Your task to perform on an android device: install app "Skype" Image 0: 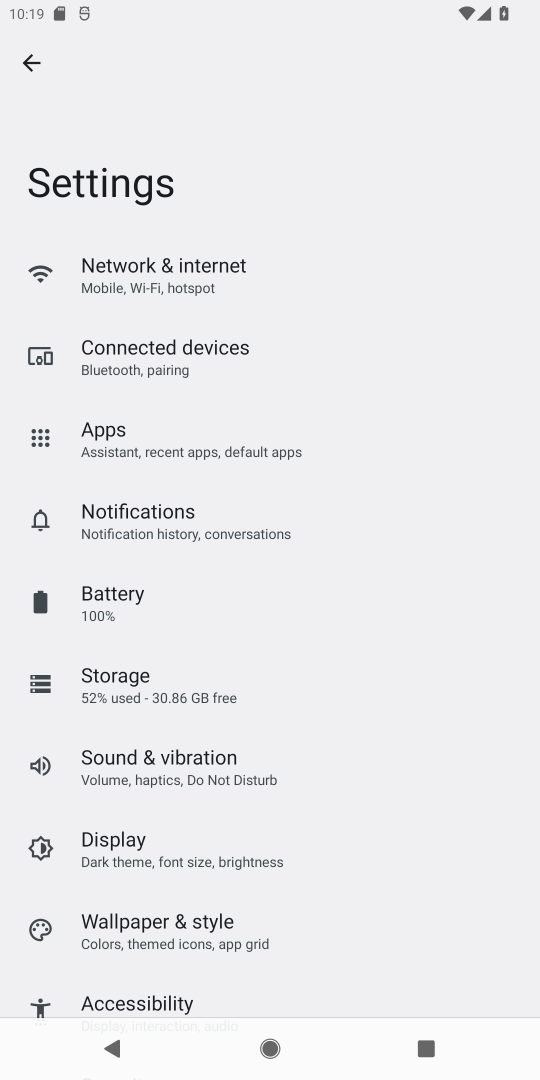
Step 0: press home button
Your task to perform on an android device: install app "Skype" Image 1: 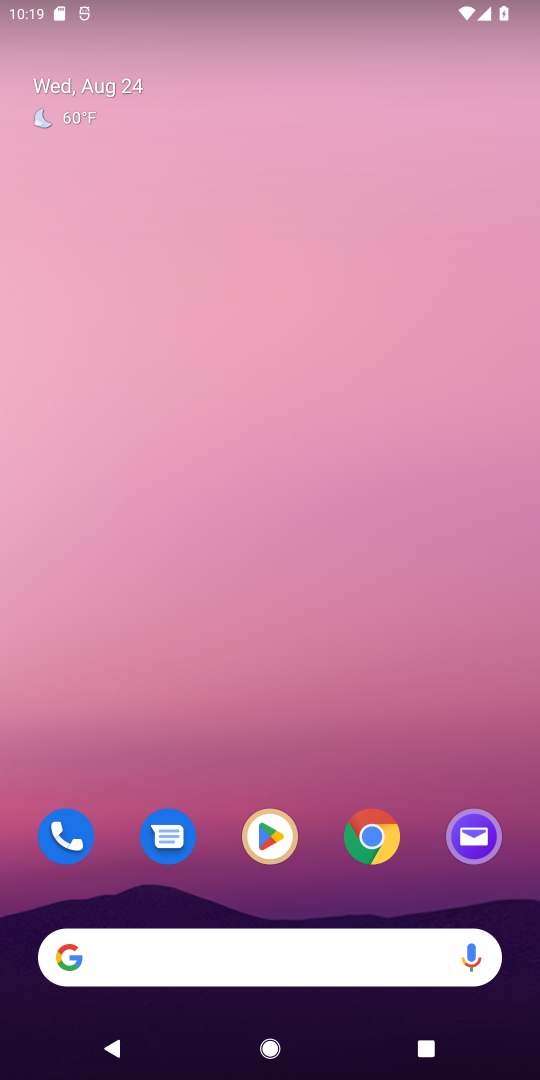
Step 1: click (291, 835)
Your task to perform on an android device: install app "Skype" Image 2: 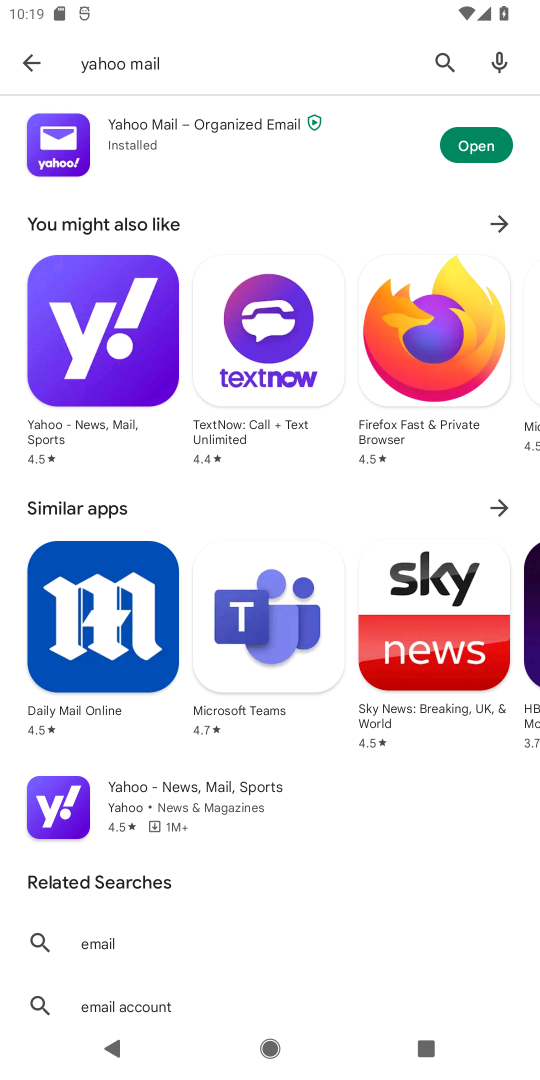
Step 2: click (444, 71)
Your task to perform on an android device: install app "Skype" Image 3: 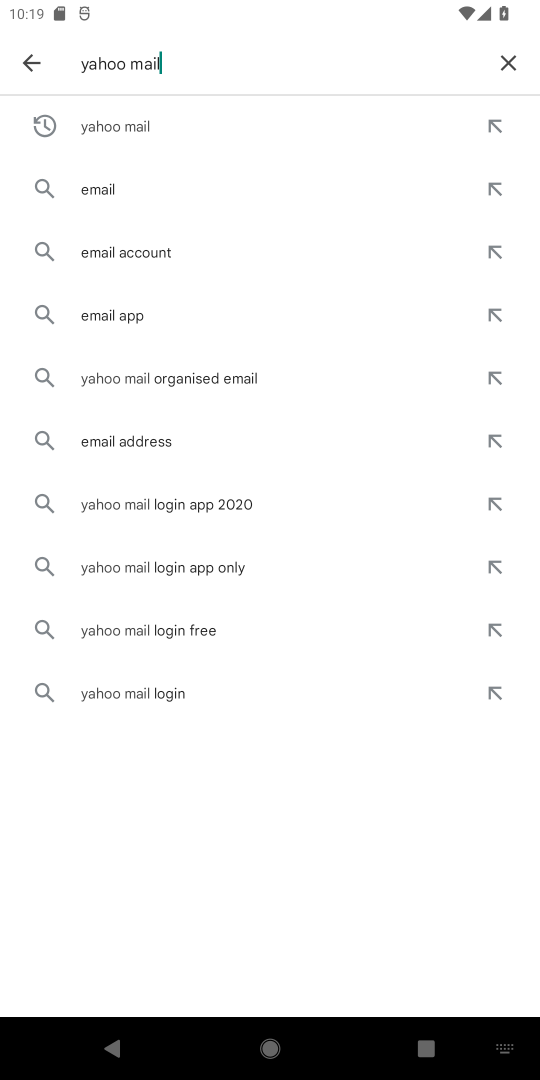
Step 3: click (508, 72)
Your task to perform on an android device: install app "Skype" Image 4: 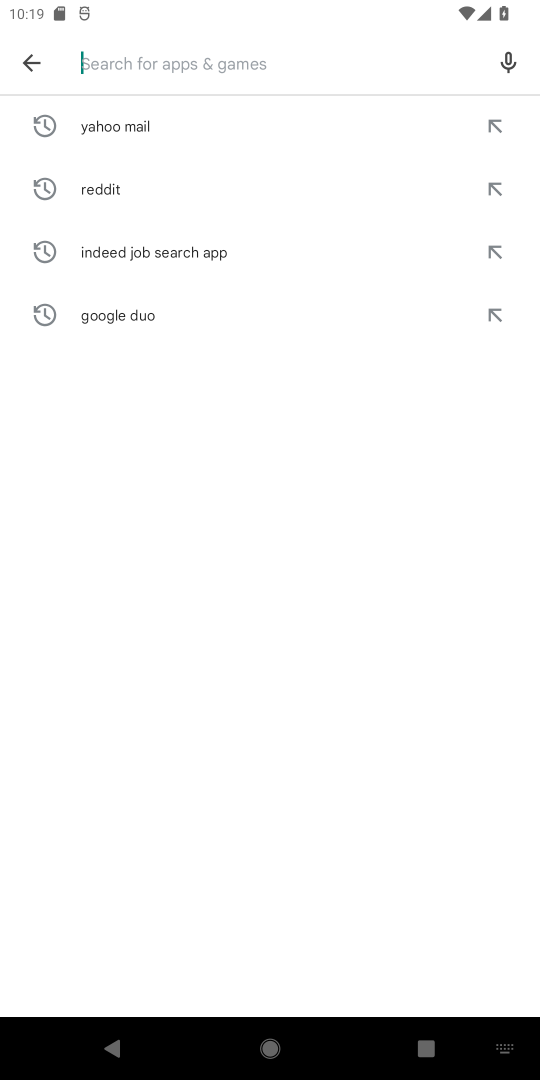
Step 4: type "Skype"
Your task to perform on an android device: install app "Skype" Image 5: 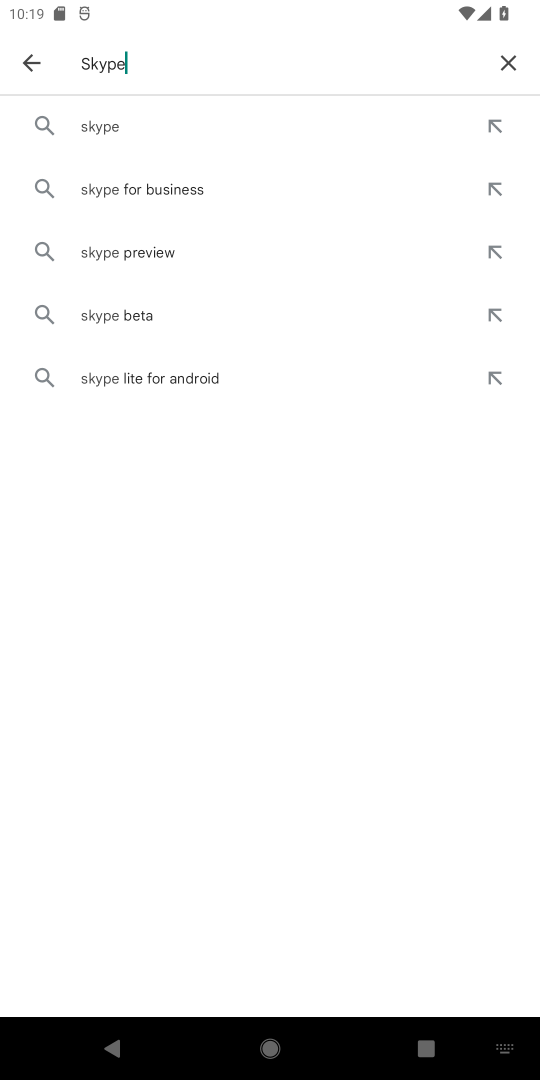
Step 5: click (115, 122)
Your task to perform on an android device: install app "Skype" Image 6: 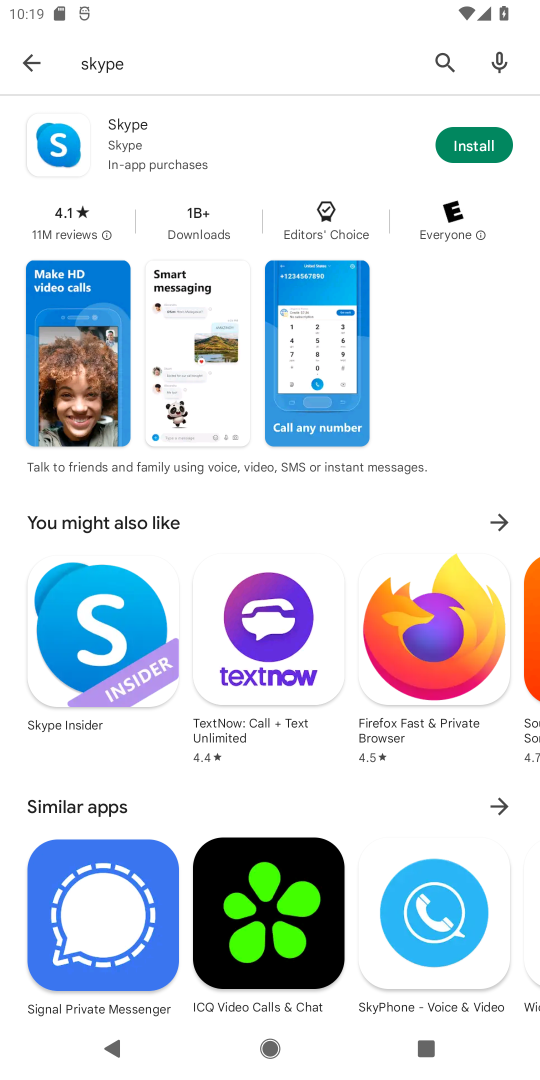
Step 6: click (478, 138)
Your task to perform on an android device: install app "Skype" Image 7: 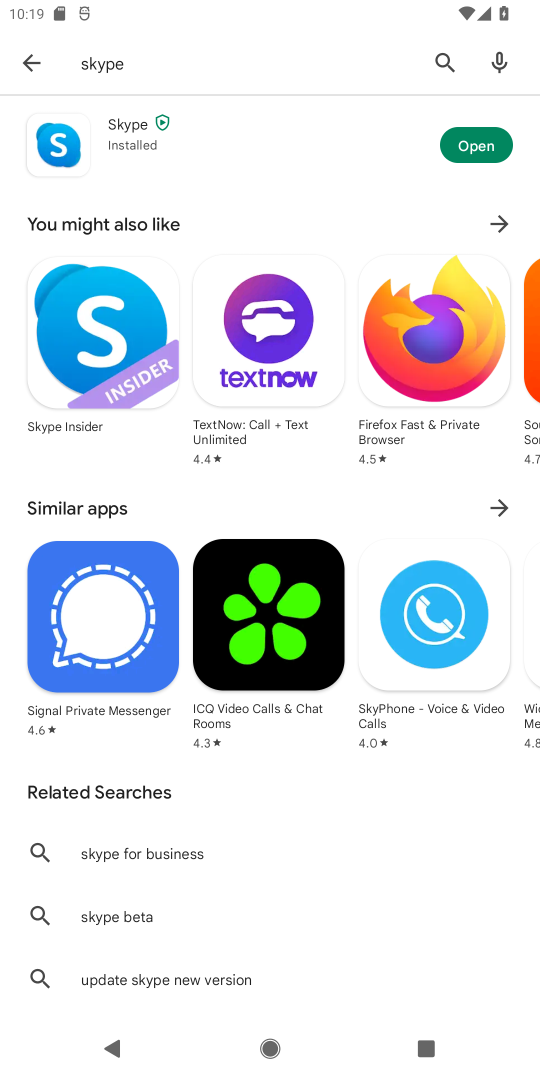
Step 7: task complete